Your task to perform on an android device: Open the map Image 0: 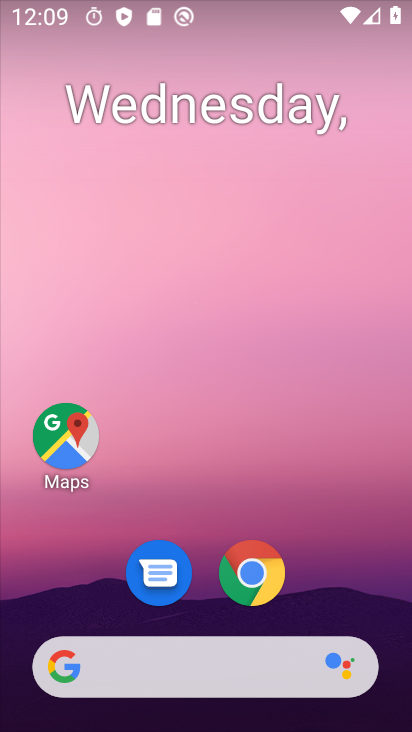
Step 0: drag from (271, 460) to (5, 78)
Your task to perform on an android device: Open the map Image 1: 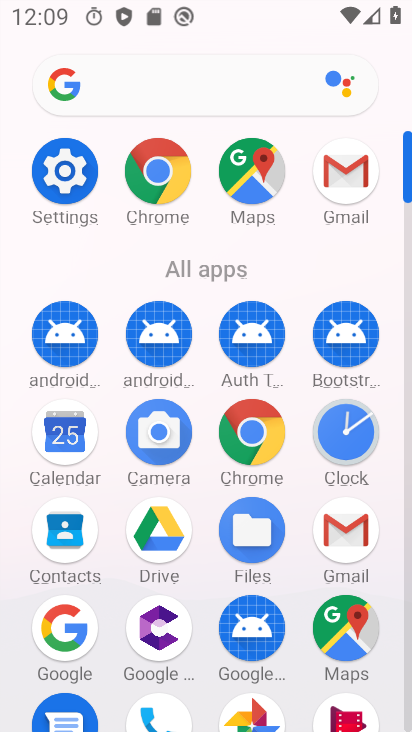
Step 1: click (241, 182)
Your task to perform on an android device: Open the map Image 2: 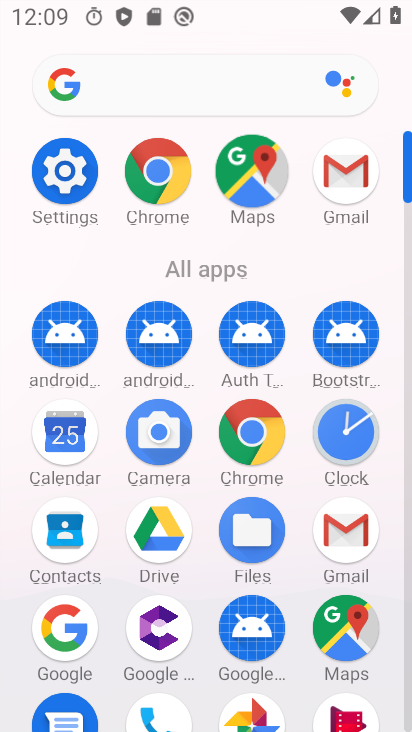
Step 2: click (243, 179)
Your task to perform on an android device: Open the map Image 3: 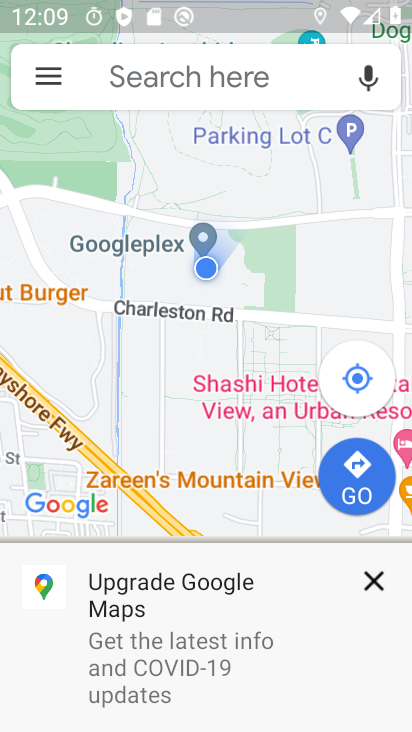
Step 3: task complete